Your task to perform on an android device: open app "Indeed Job Search" Image 0: 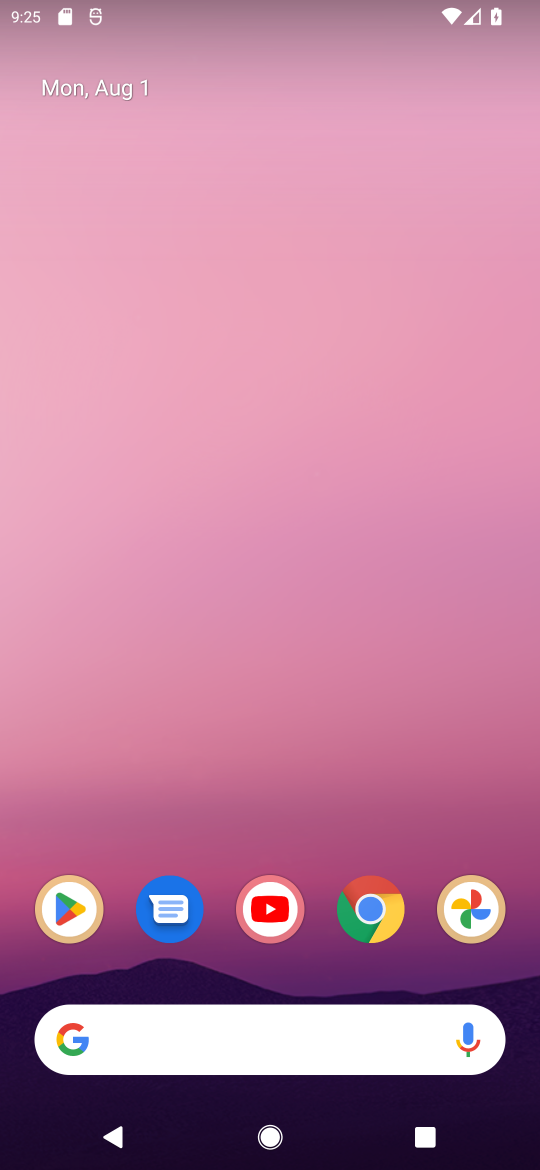
Step 0: click (71, 904)
Your task to perform on an android device: open app "Indeed Job Search" Image 1: 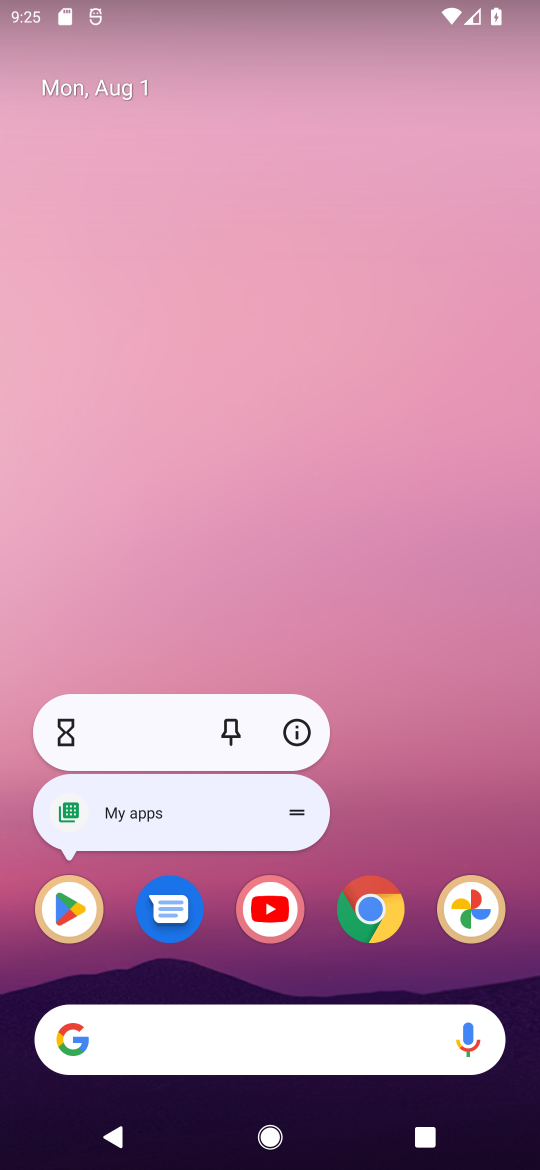
Step 1: click (57, 932)
Your task to perform on an android device: open app "Indeed Job Search" Image 2: 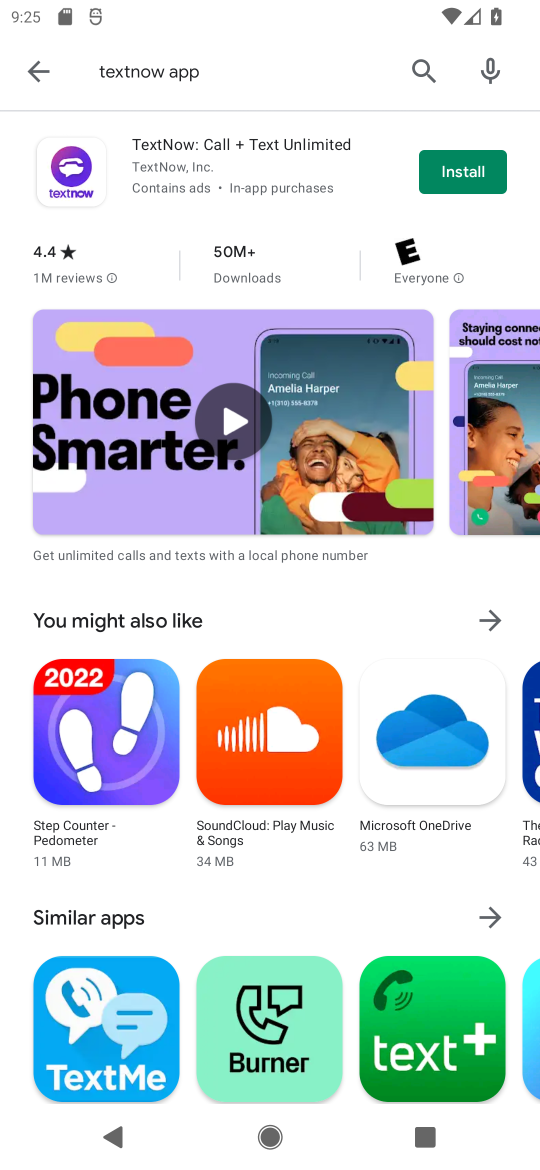
Step 2: click (202, 83)
Your task to perform on an android device: open app "Indeed Job Search" Image 3: 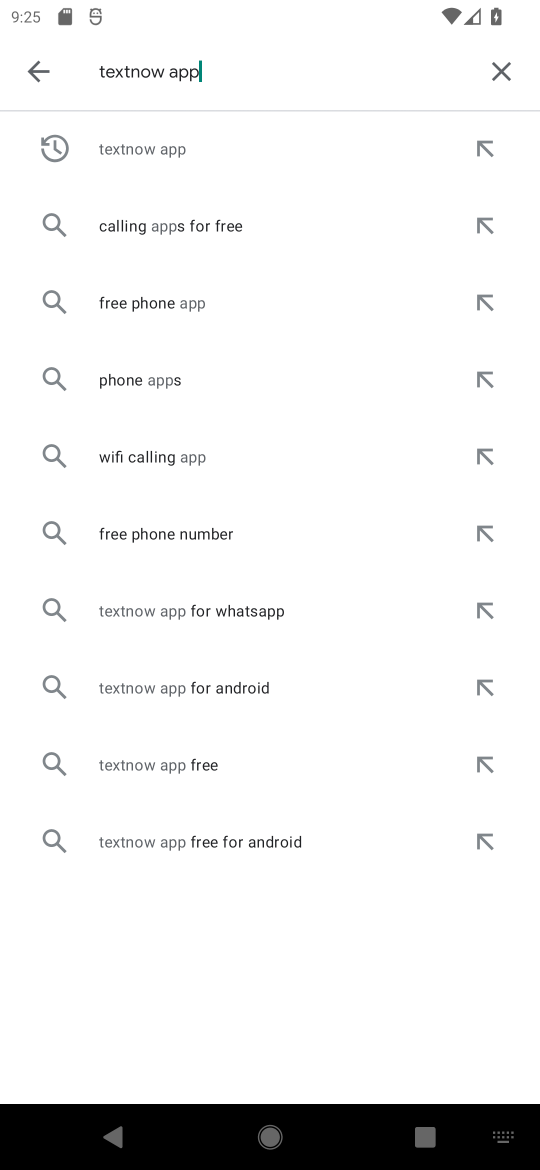
Step 3: click (490, 68)
Your task to perform on an android device: open app "Indeed Job Search" Image 4: 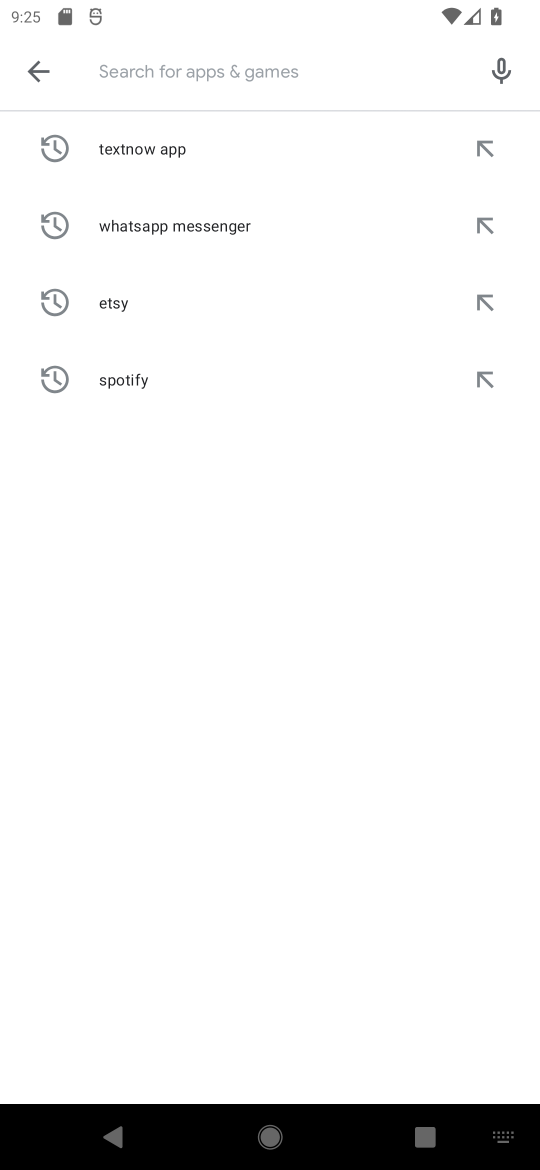
Step 4: type "indeed"
Your task to perform on an android device: open app "Indeed Job Search" Image 5: 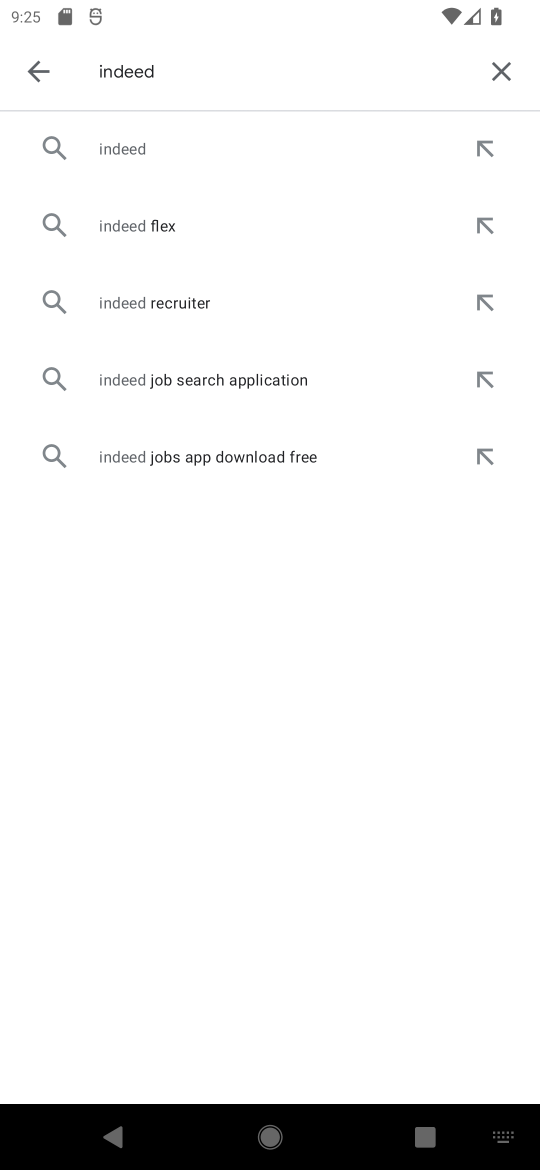
Step 5: click (129, 152)
Your task to perform on an android device: open app "Indeed Job Search" Image 6: 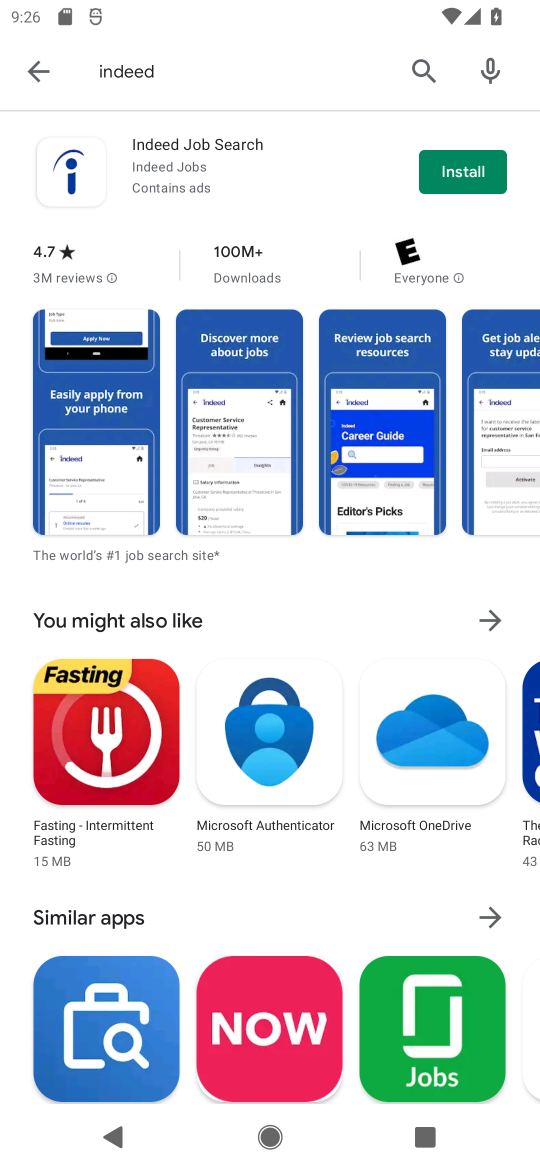
Step 6: task complete